Your task to perform on an android device: Open CNN.com Image 0: 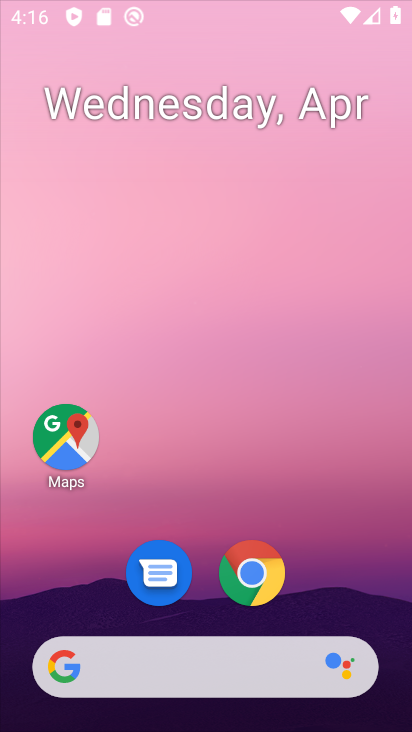
Step 0: drag from (200, 540) to (296, 85)
Your task to perform on an android device: Open CNN.com Image 1: 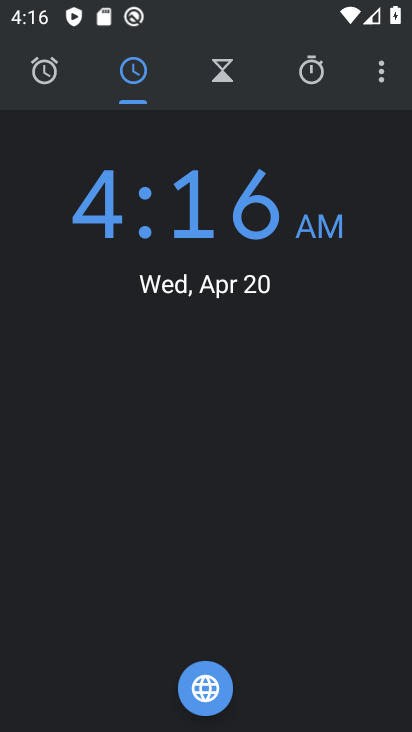
Step 1: press back button
Your task to perform on an android device: Open CNN.com Image 2: 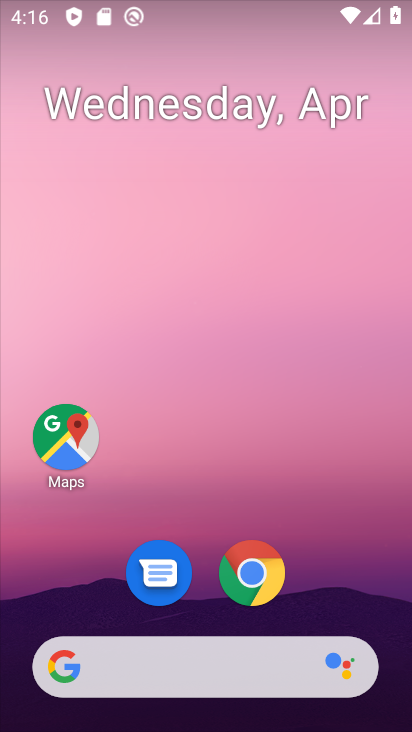
Step 2: drag from (193, 600) to (315, 162)
Your task to perform on an android device: Open CNN.com Image 3: 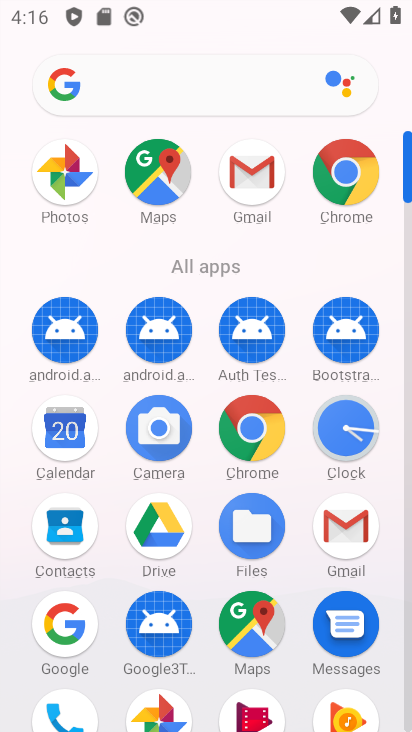
Step 3: click (254, 425)
Your task to perform on an android device: Open CNN.com Image 4: 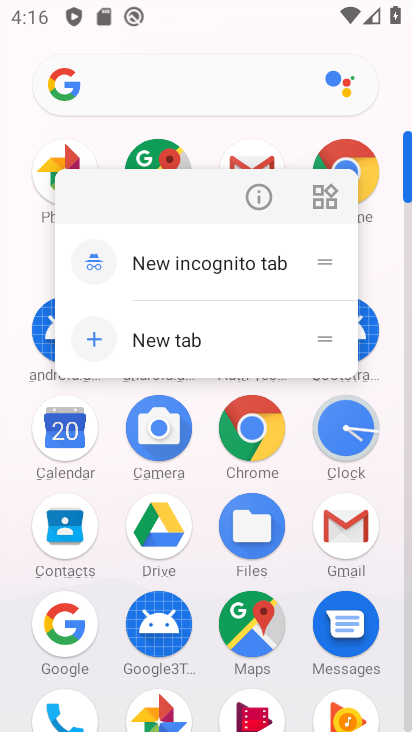
Step 4: click (268, 432)
Your task to perform on an android device: Open CNN.com Image 5: 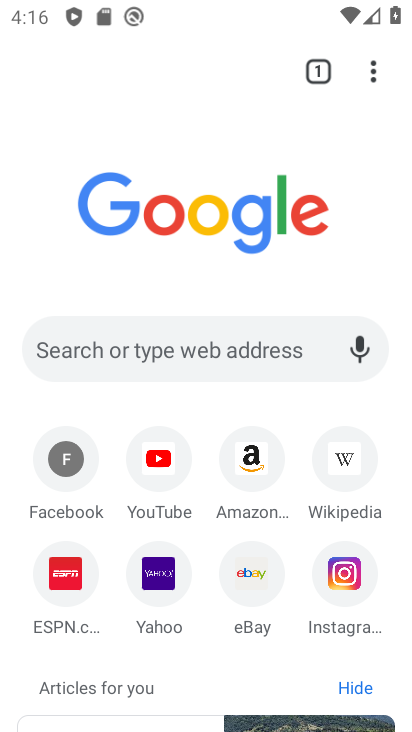
Step 5: click (157, 361)
Your task to perform on an android device: Open CNN.com Image 6: 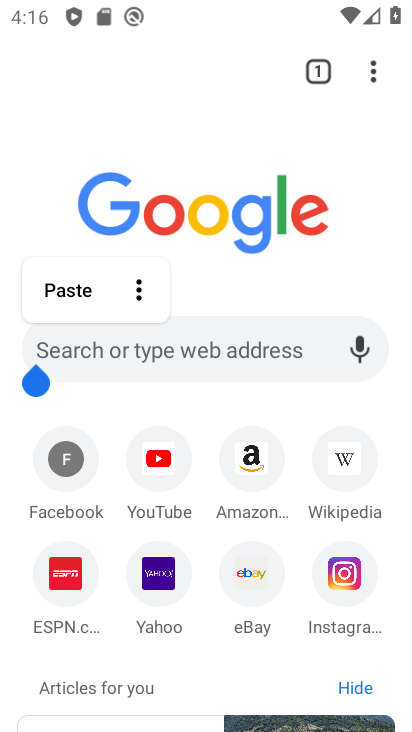
Step 6: click (209, 351)
Your task to perform on an android device: Open CNN.com Image 7: 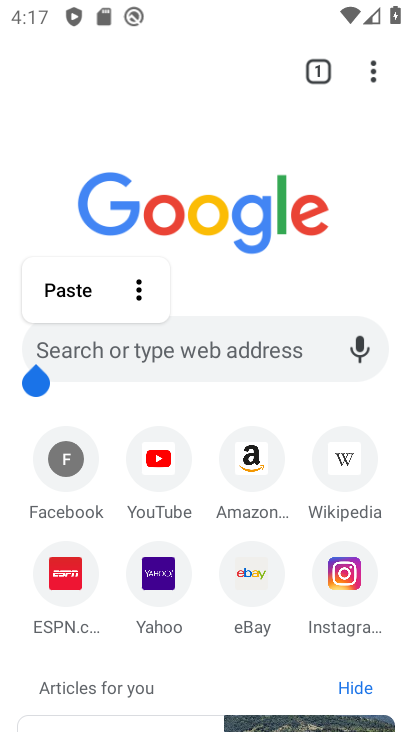
Step 7: click (213, 349)
Your task to perform on an android device: Open CNN.com Image 8: 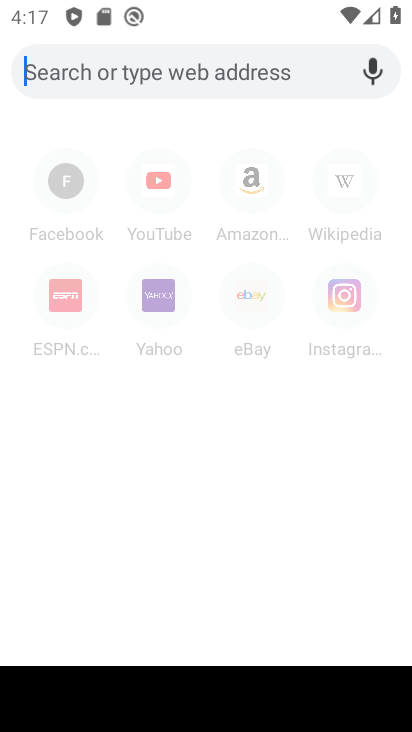
Step 8: type "CNN.com"
Your task to perform on an android device: Open CNN.com Image 9: 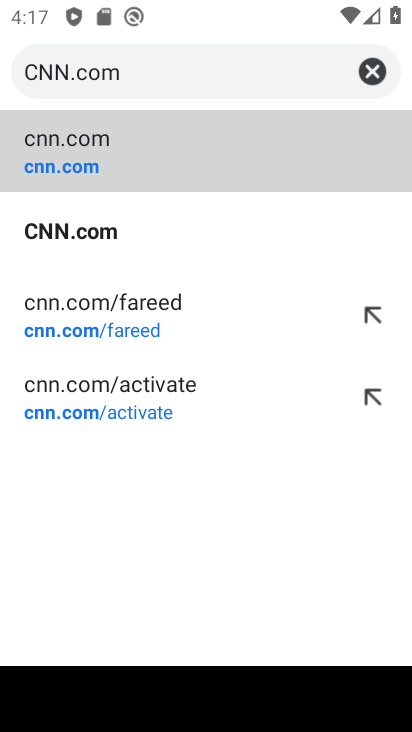
Step 9: click (59, 234)
Your task to perform on an android device: Open CNN.com Image 10: 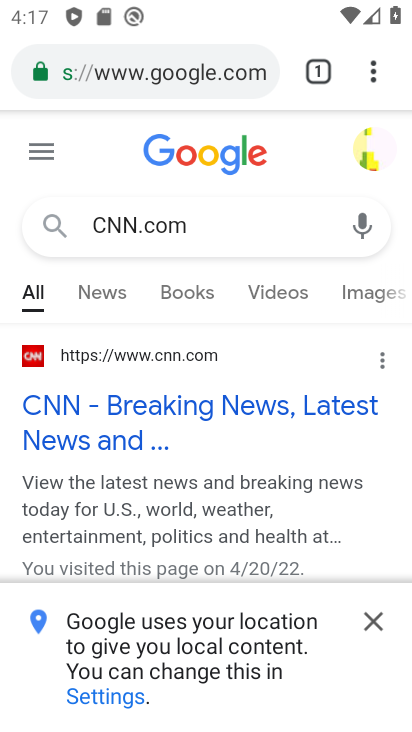
Step 10: click (130, 431)
Your task to perform on an android device: Open CNN.com Image 11: 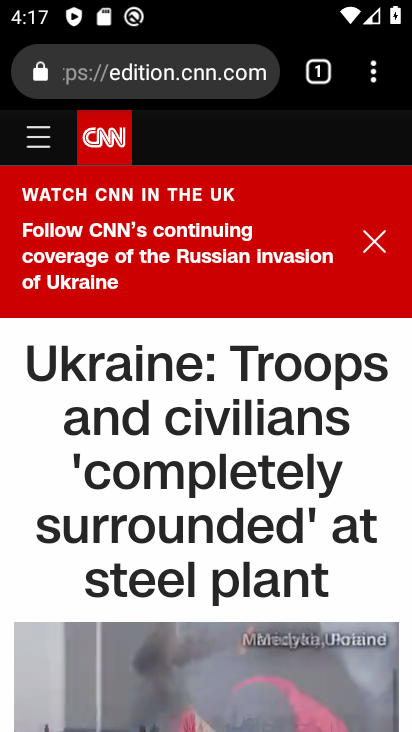
Step 11: task complete